Your task to perform on an android device: Search for good Greek restaurants Image 0: 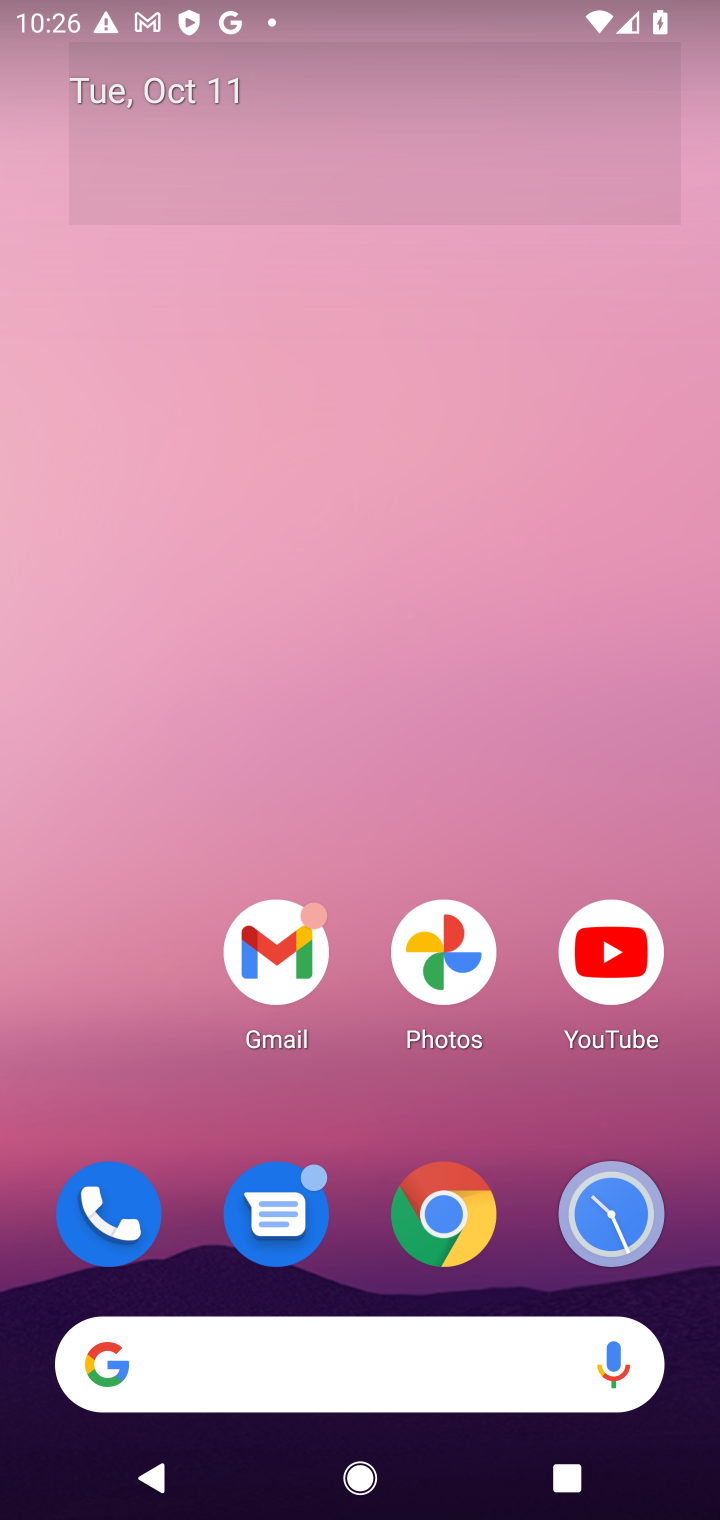
Step 0: drag from (371, 1096) to (237, 212)
Your task to perform on an android device: Search for good Greek restaurants Image 1: 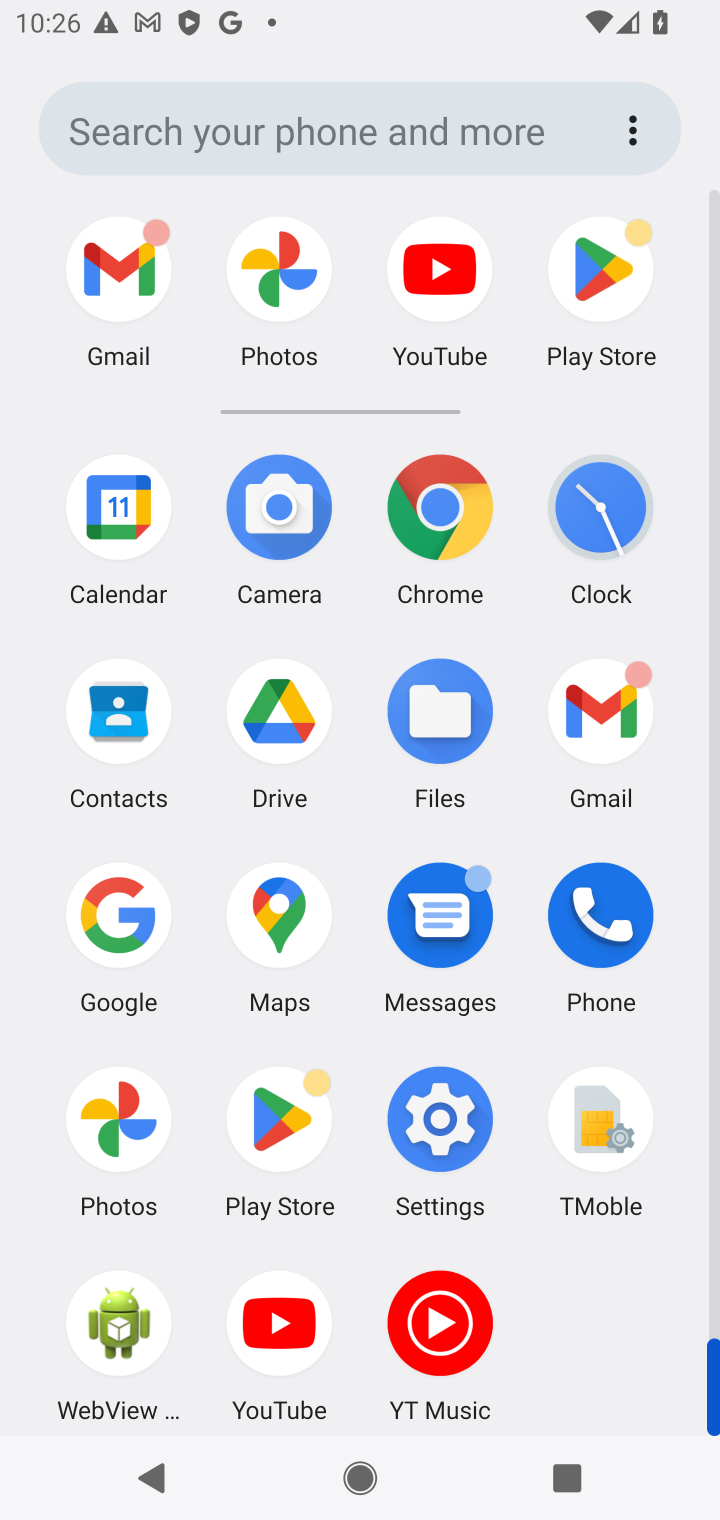
Step 1: click (446, 500)
Your task to perform on an android device: Search for good Greek restaurants Image 2: 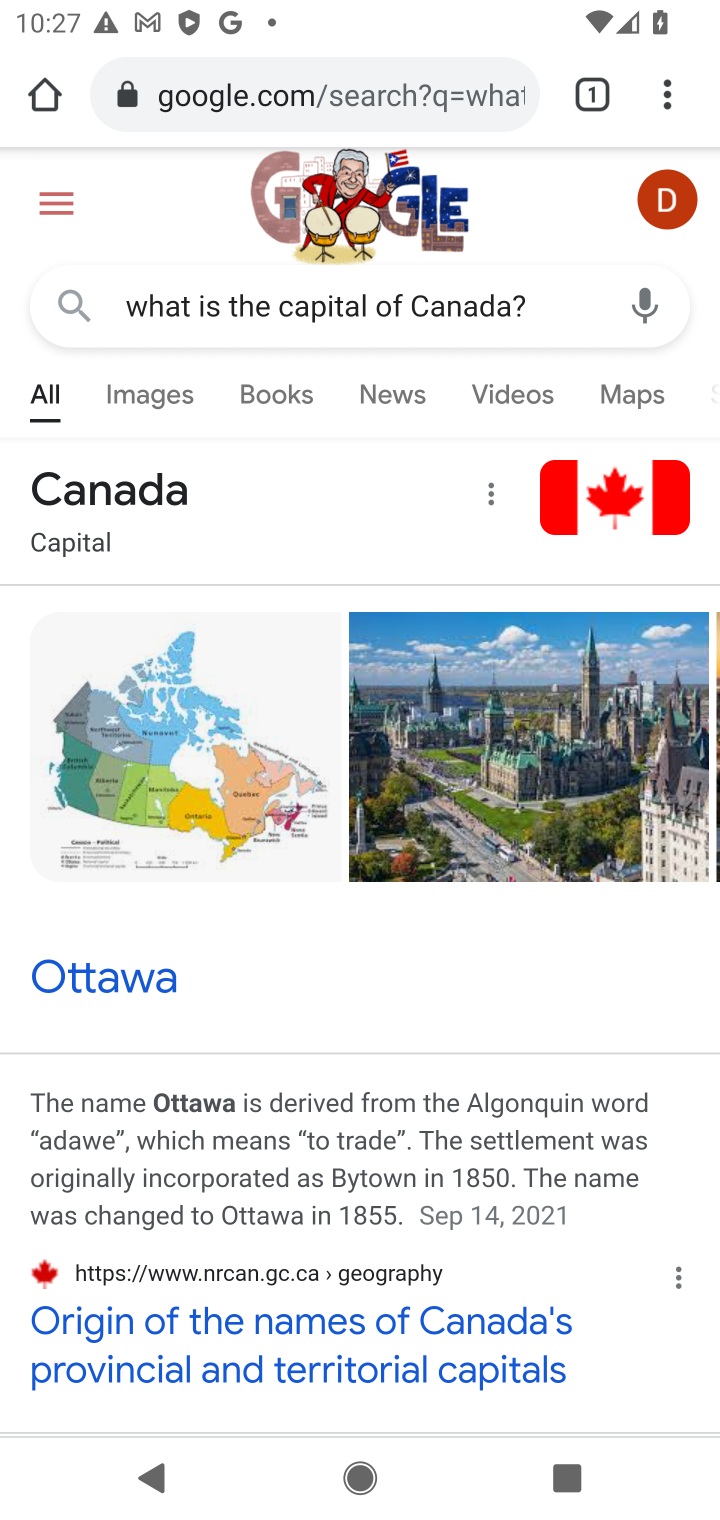
Step 2: click (382, 104)
Your task to perform on an android device: Search for good Greek restaurants Image 3: 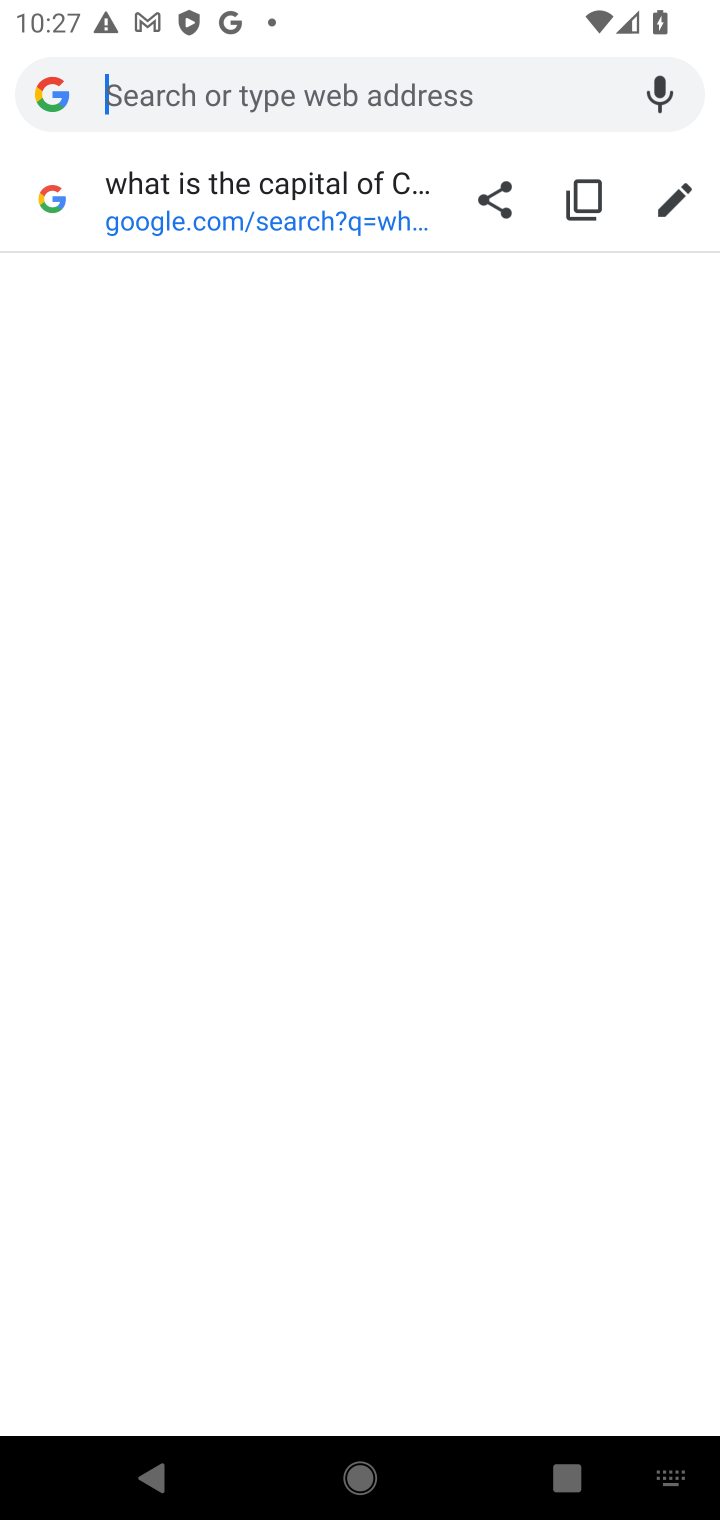
Step 3: type "good Greek restaurants"
Your task to perform on an android device: Search for good Greek restaurants Image 4: 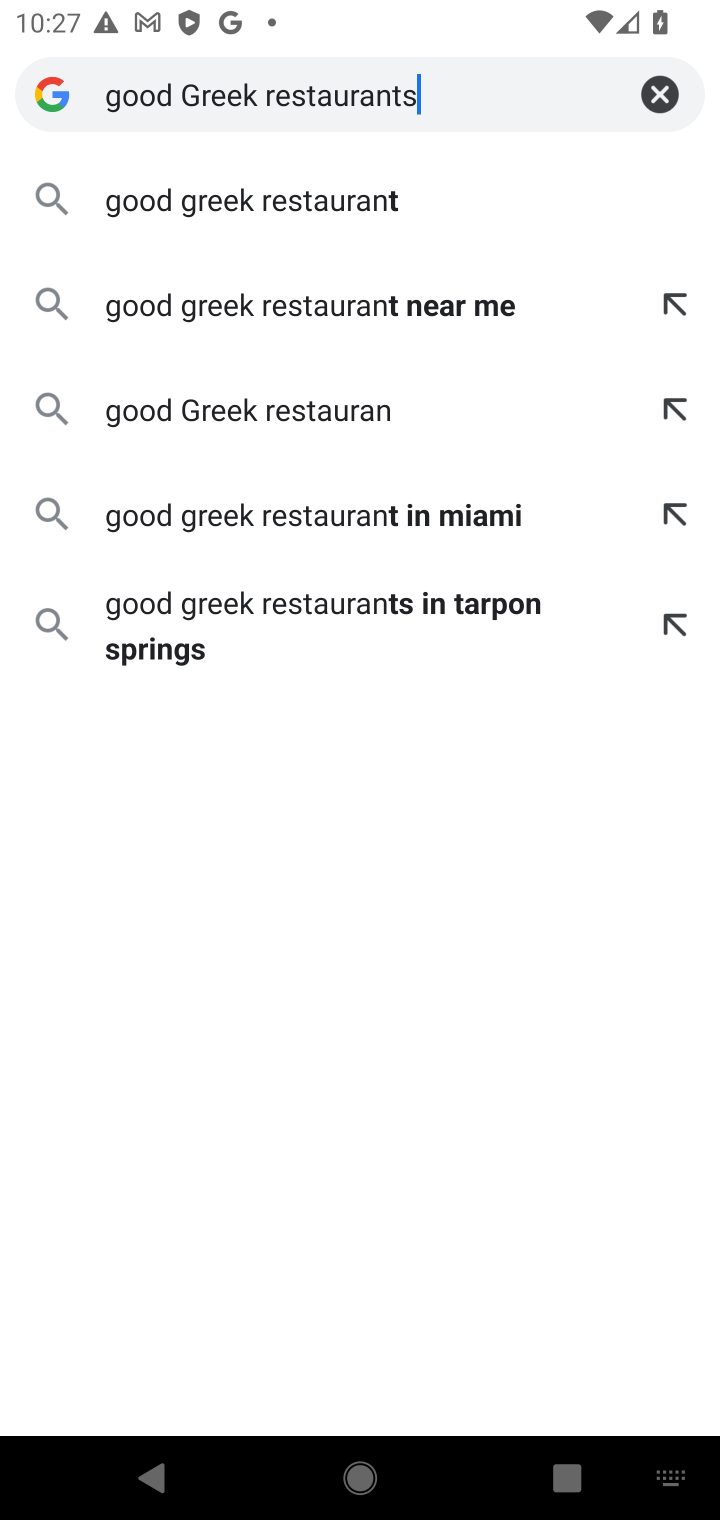
Step 4: press enter
Your task to perform on an android device: Search for good Greek restaurants Image 5: 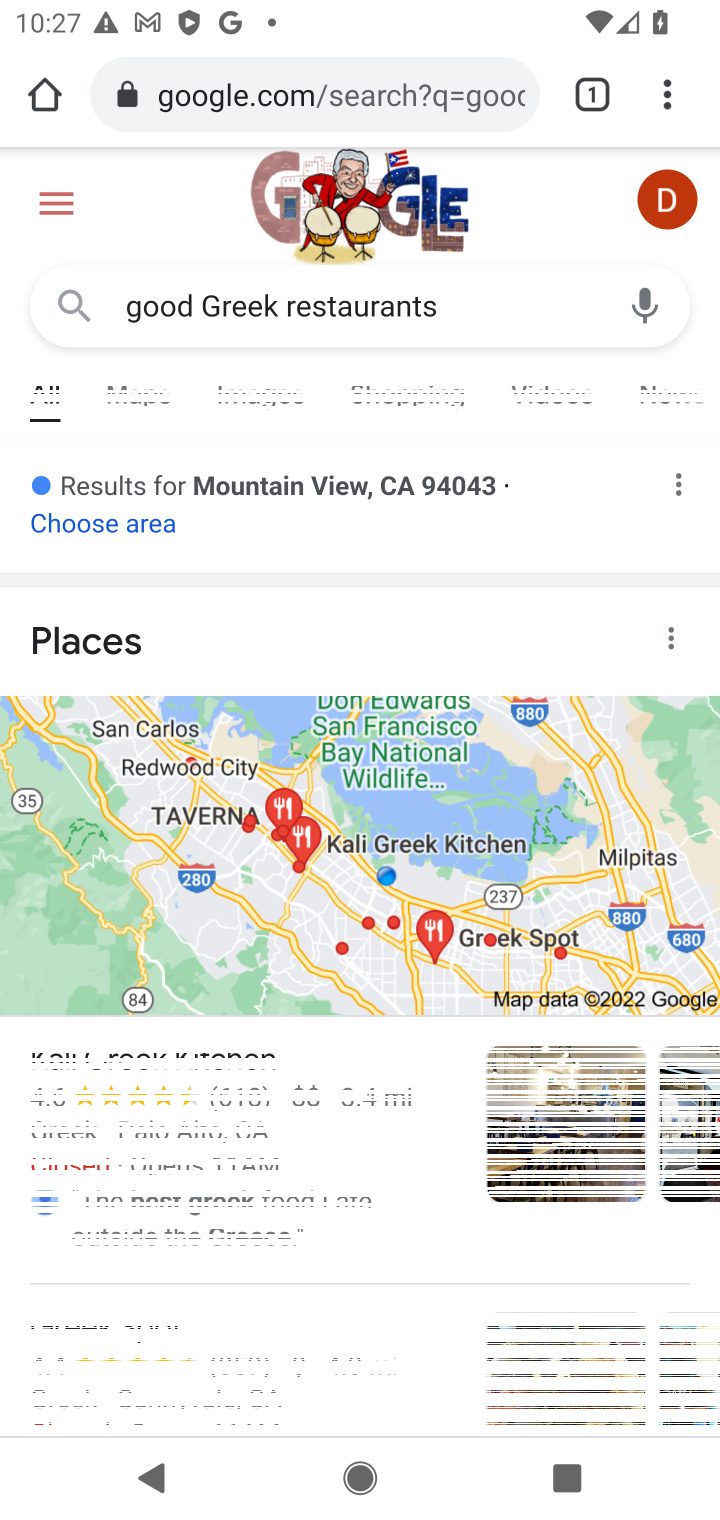
Step 5: task complete